Your task to perform on an android device: toggle wifi Image 0: 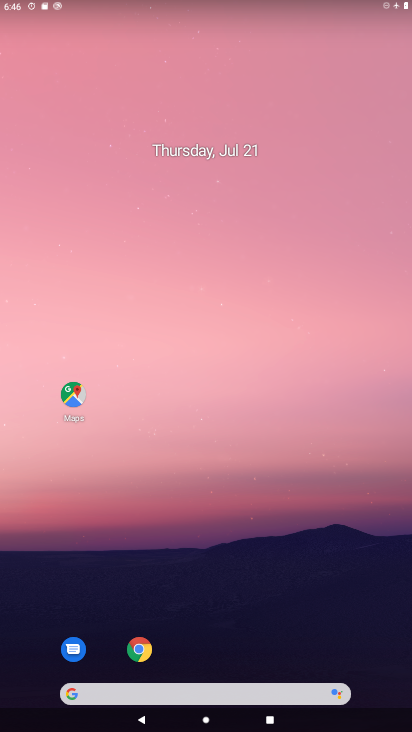
Step 0: drag from (192, 6) to (240, 506)
Your task to perform on an android device: toggle wifi Image 1: 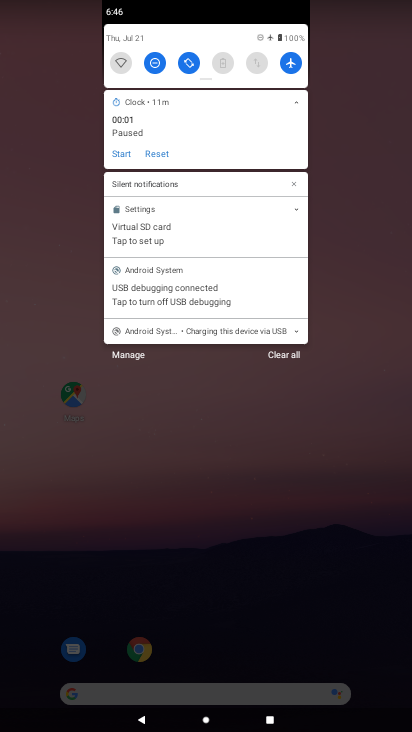
Step 1: click (126, 62)
Your task to perform on an android device: toggle wifi Image 2: 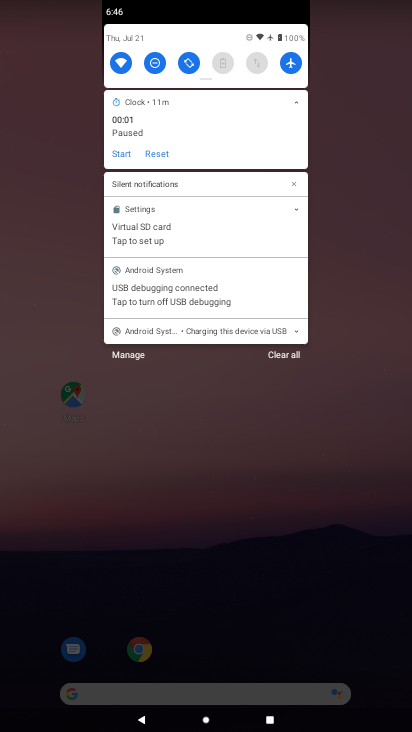
Step 2: task complete